Your task to perform on an android device: Open settings Image 0: 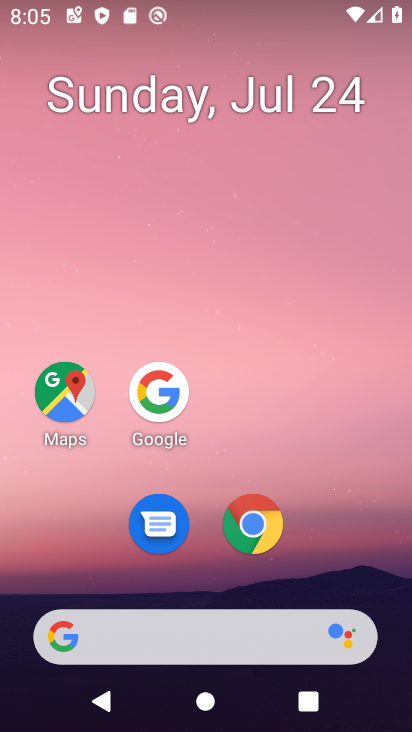
Step 0: drag from (162, 642) to (340, 74)
Your task to perform on an android device: Open settings Image 1: 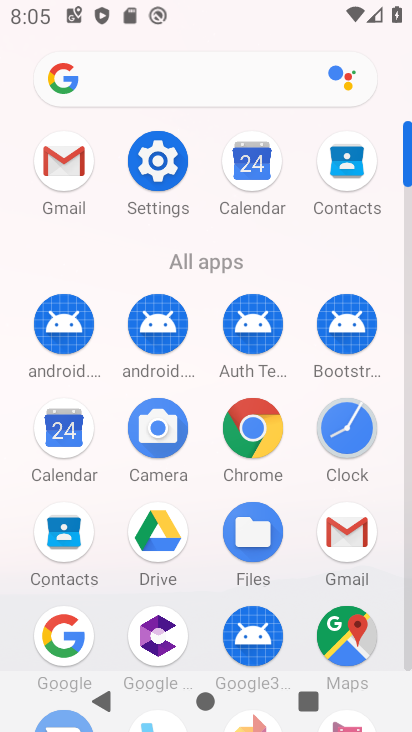
Step 1: click (161, 170)
Your task to perform on an android device: Open settings Image 2: 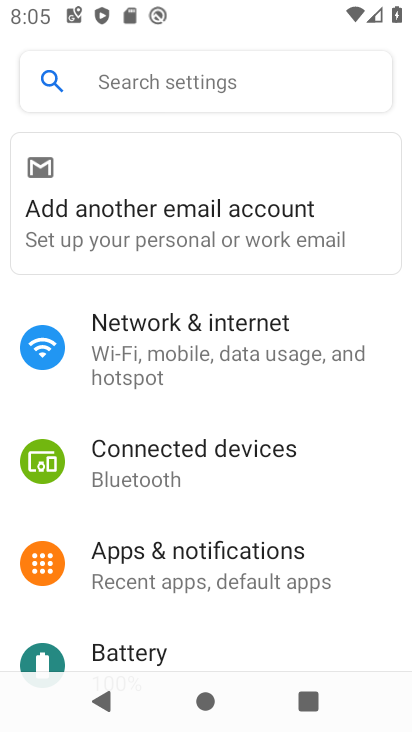
Step 2: task complete